Your task to perform on an android device: Open sound settings Image 0: 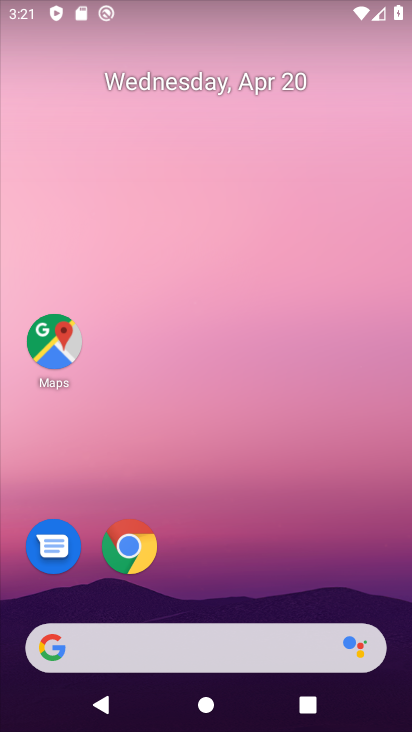
Step 0: drag from (258, 422) to (336, 17)
Your task to perform on an android device: Open sound settings Image 1: 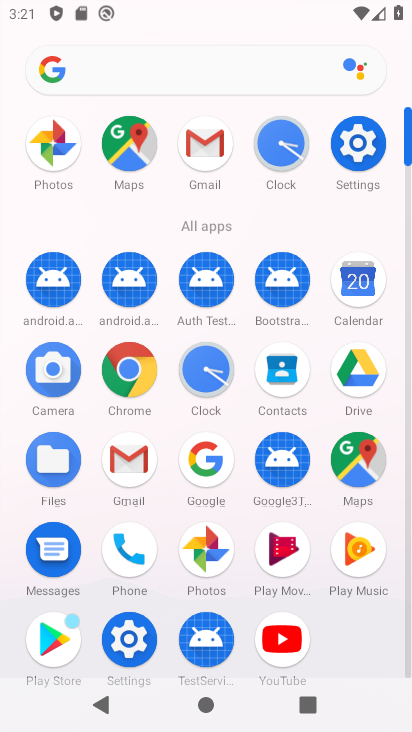
Step 1: click (367, 155)
Your task to perform on an android device: Open sound settings Image 2: 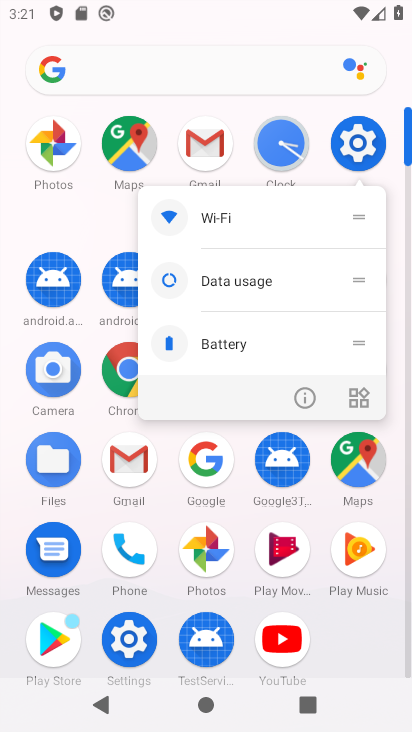
Step 2: click (362, 152)
Your task to perform on an android device: Open sound settings Image 3: 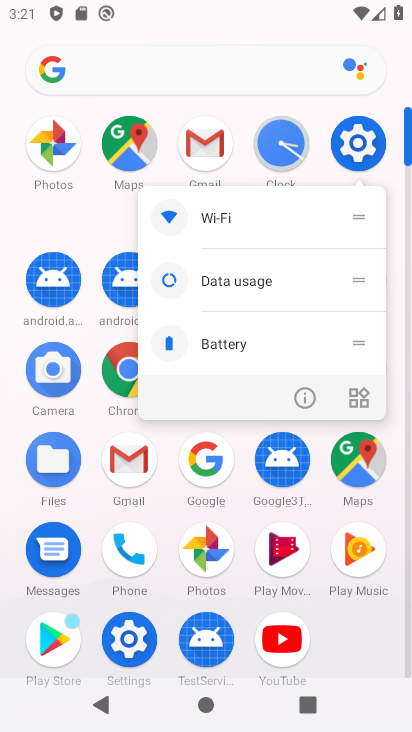
Step 3: click (352, 147)
Your task to perform on an android device: Open sound settings Image 4: 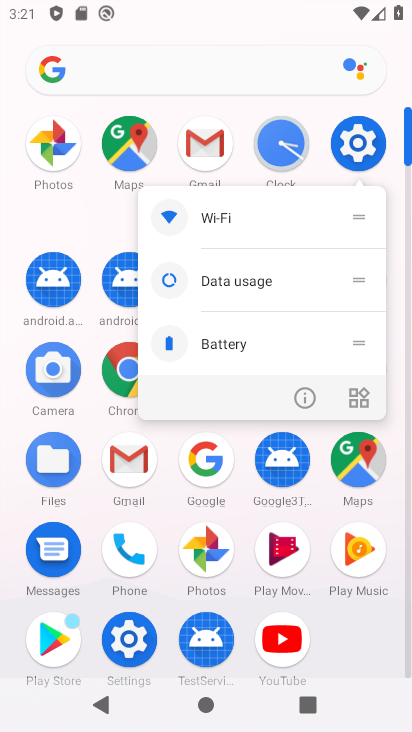
Step 4: click (352, 146)
Your task to perform on an android device: Open sound settings Image 5: 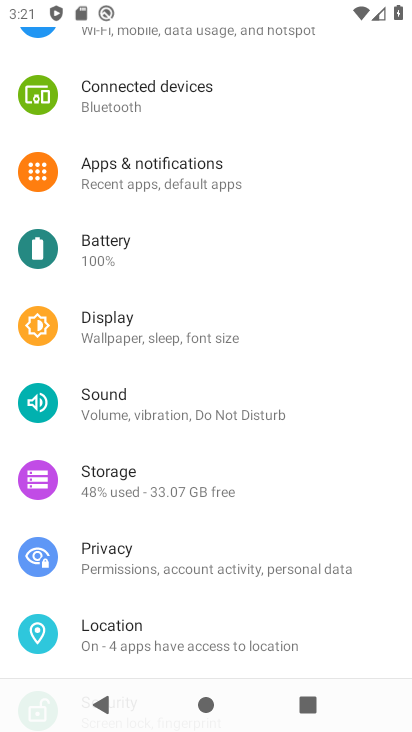
Step 5: click (175, 416)
Your task to perform on an android device: Open sound settings Image 6: 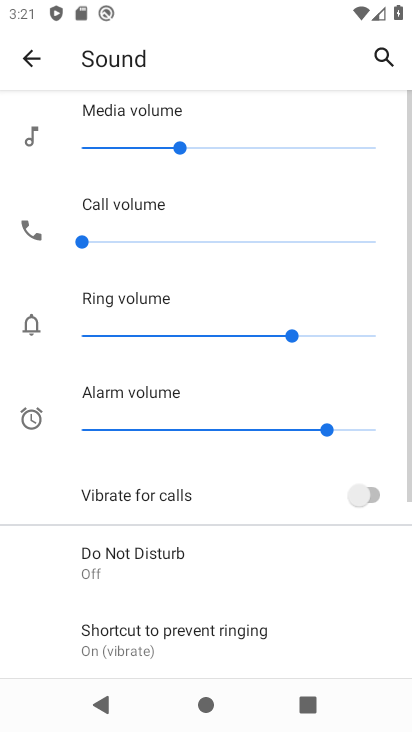
Step 6: task complete